Your task to perform on an android device: Is it going to rain tomorrow? Image 0: 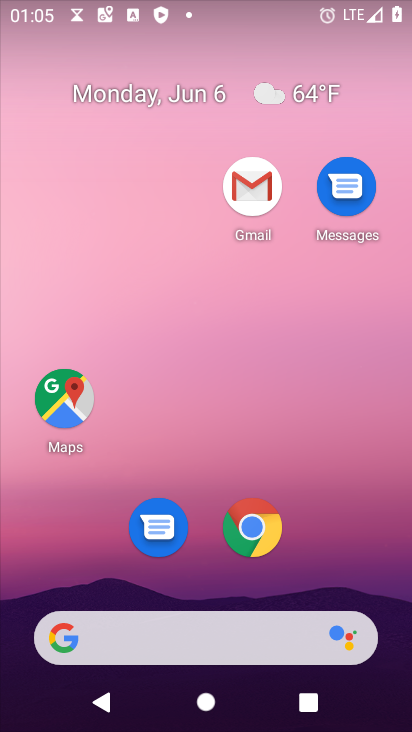
Step 0: click (227, 632)
Your task to perform on an android device: Is it going to rain tomorrow? Image 1: 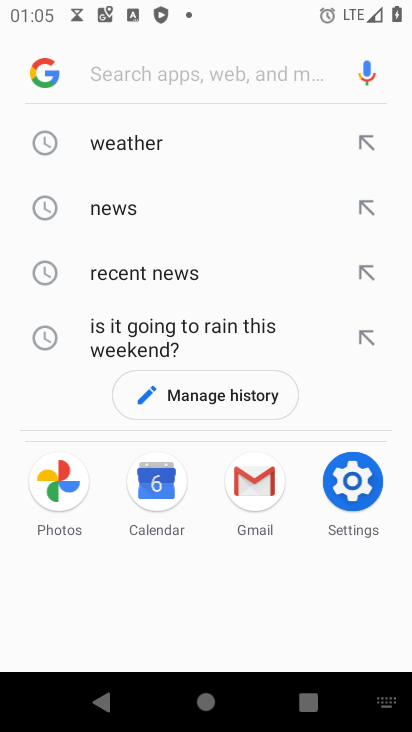
Step 1: click (148, 145)
Your task to perform on an android device: Is it going to rain tomorrow? Image 2: 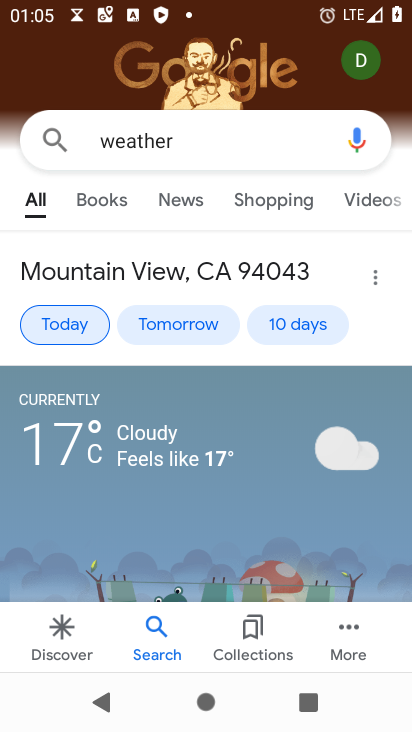
Step 2: click (180, 316)
Your task to perform on an android device: Is it going to rain tomorrow? Image 3: 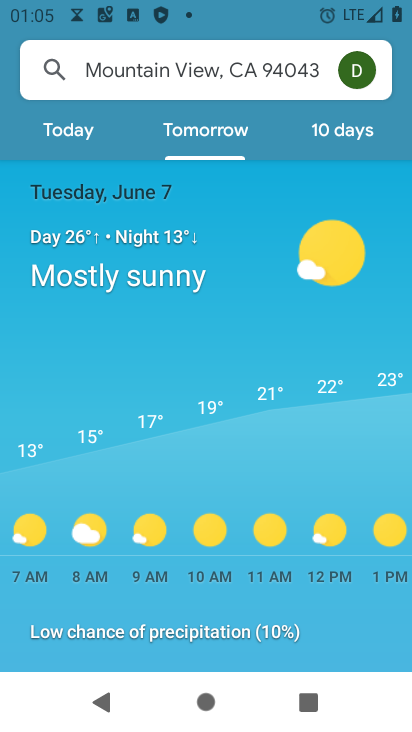
Step 3: task complete